Your task to perform on an android device: turn off location Image 0: 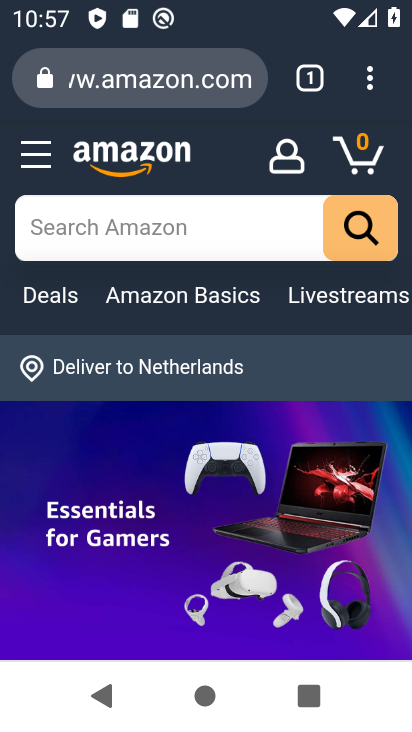
Step 0: press home button
Your task to perform on an android device: turn off location Image 1: 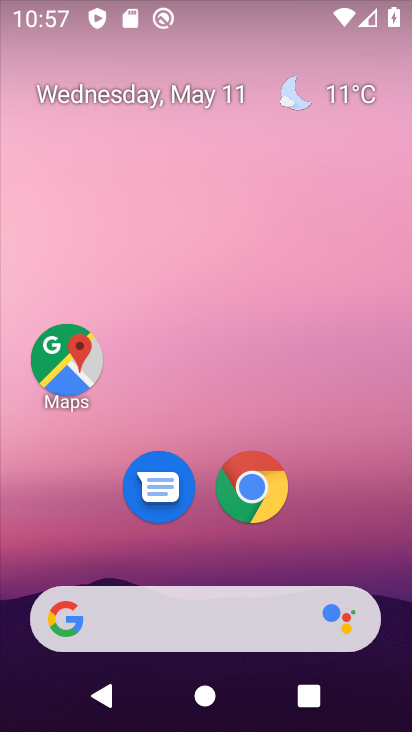
Step 1: drag from (351, 554) to (351, 40)
Your task to perform on an android device: turn off location Image 2: 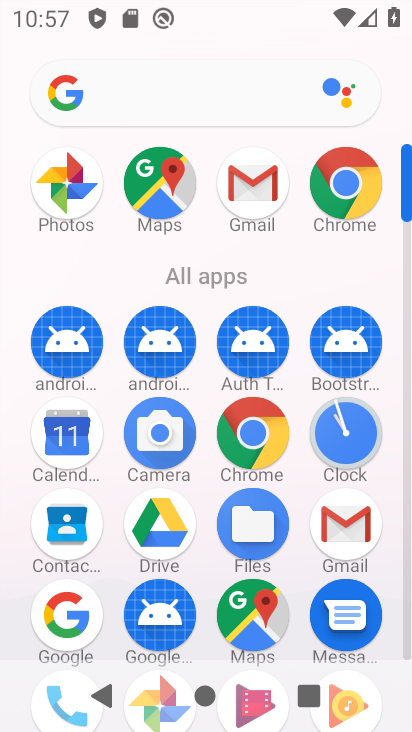
Step 2: drag from (303, 636) to (297, 315)
Your task to perform on an android device: turn off location Image 3: 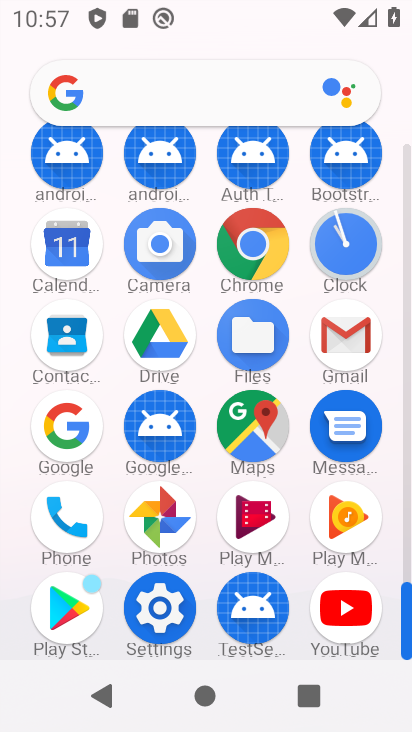
Step 3: click (174, 616)
Your task to perform on an android device: turn off location Image 4: 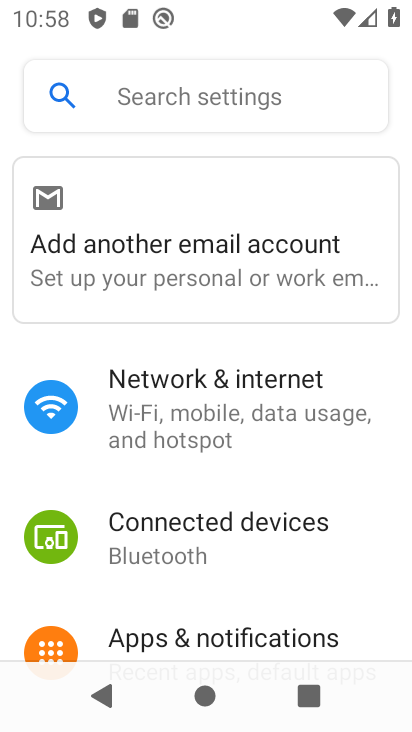
Step 4: drag from (275, 594) to (290, 285)
Your task to perform on an android device: turn off location Image 5: 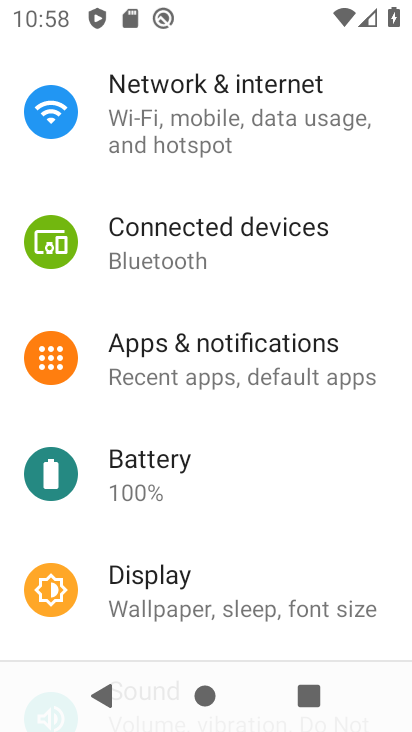
Step 5: drag from (279, 599) to (280, 256)
Your task to perform on an android device: turn off location Image 6: 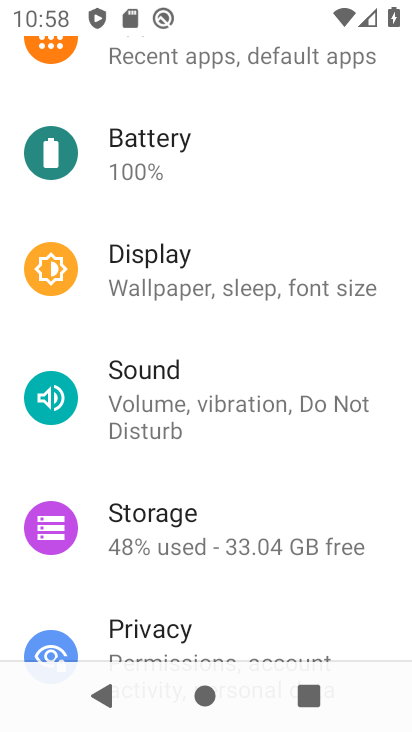
Step 6: drag from (240, 567) to (288, 174)
Your task to perform on an android device: turn off location Image 7: 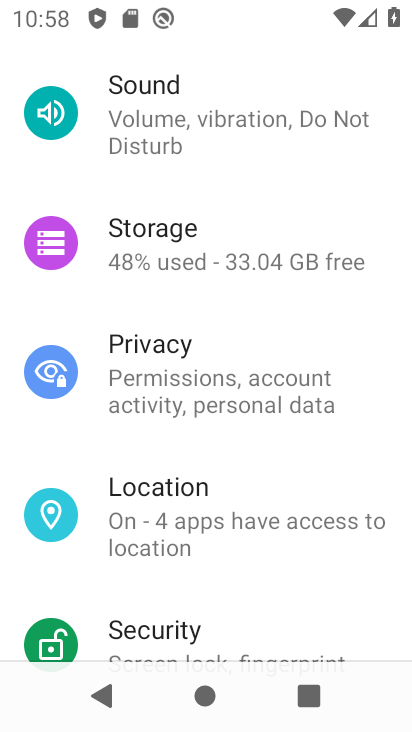
Step 7: click (233, 534)
Your task to perform on an android device: turn off location Image 8: 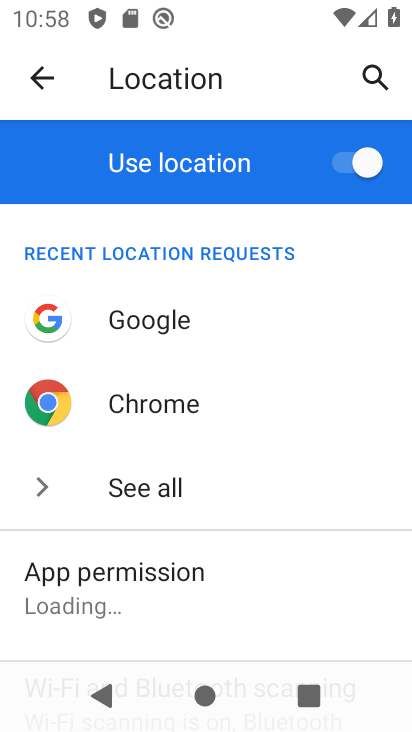
Step 8: click (349, 164)
Your task to perform on an android device: turn off location Image 9: 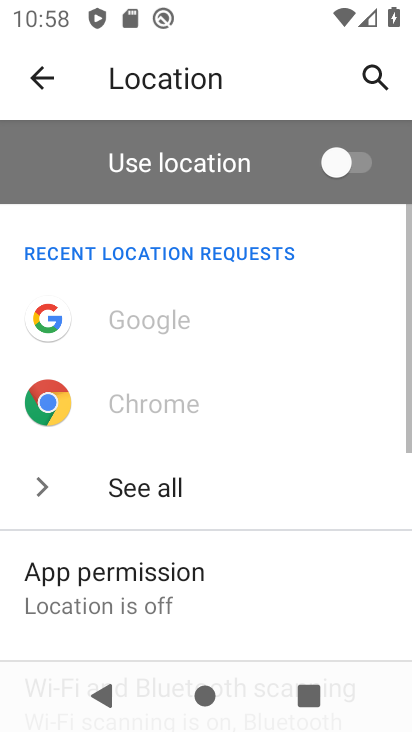
Step 9: task complete